Your task to perform on an android device: turn smart compose on in the gmail app Image 0: 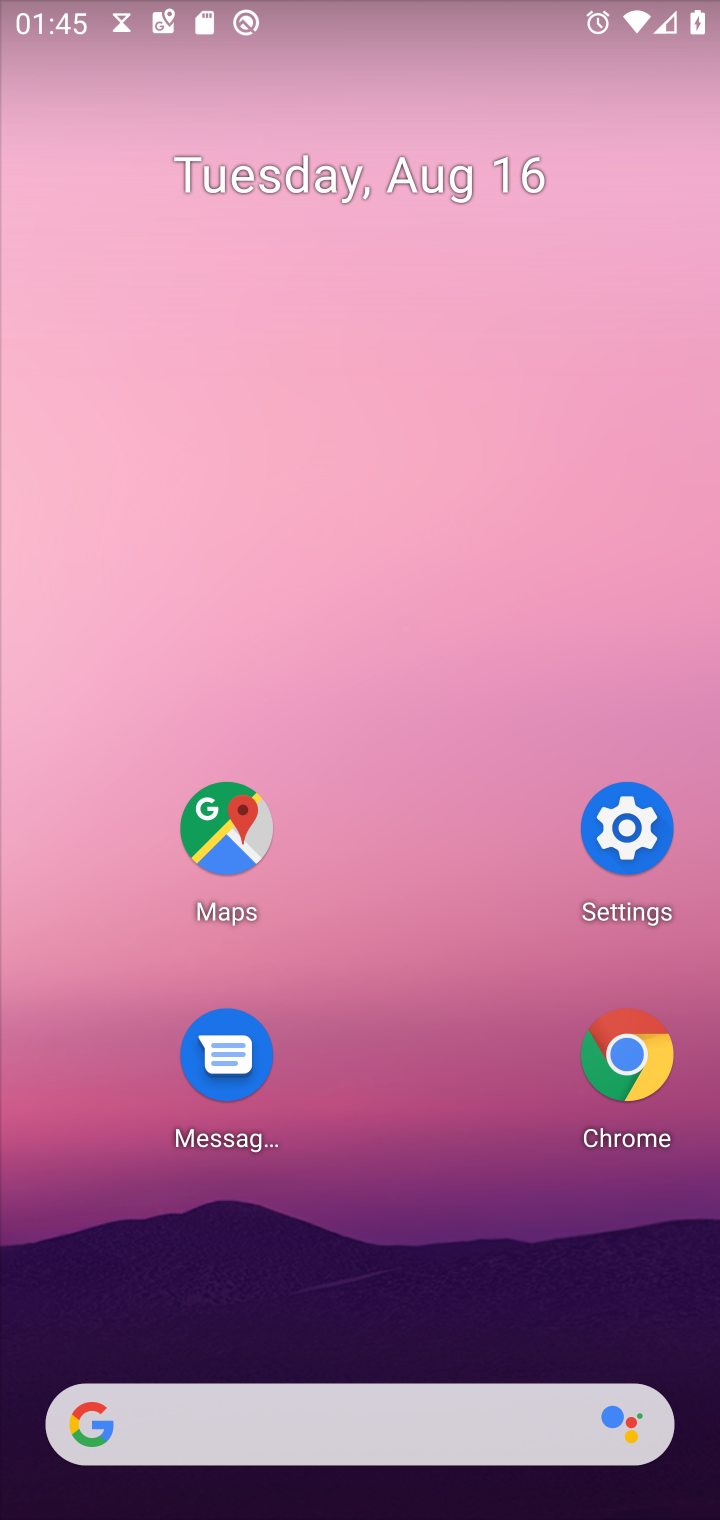
Step 0: drag from (438, 1078) to (576, 241)
Your task to perform on an android device: turn smart compose on in the gmail app Image 1: 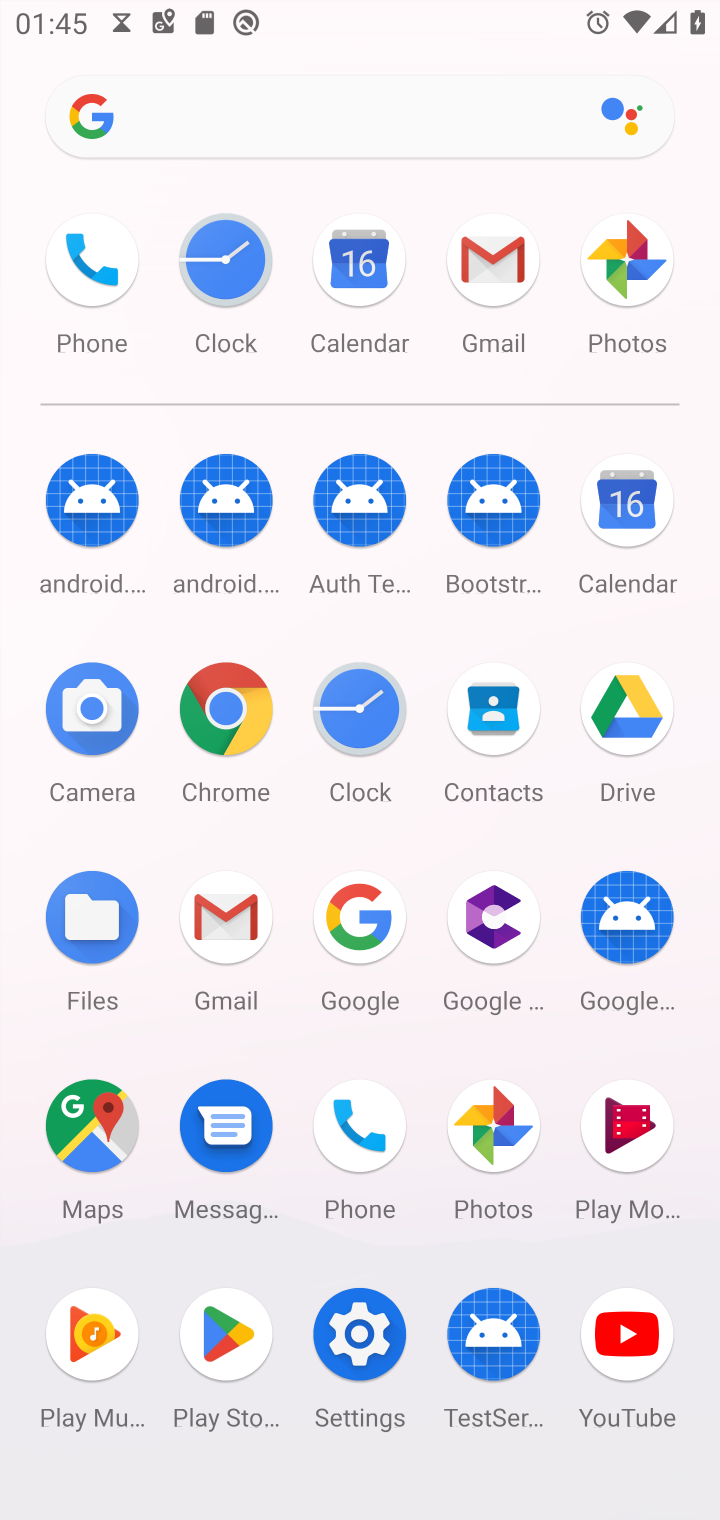
Step 1: click (493, 258)
Your task to perform on an android device: turn smart compose on in the gmail app Image 2: 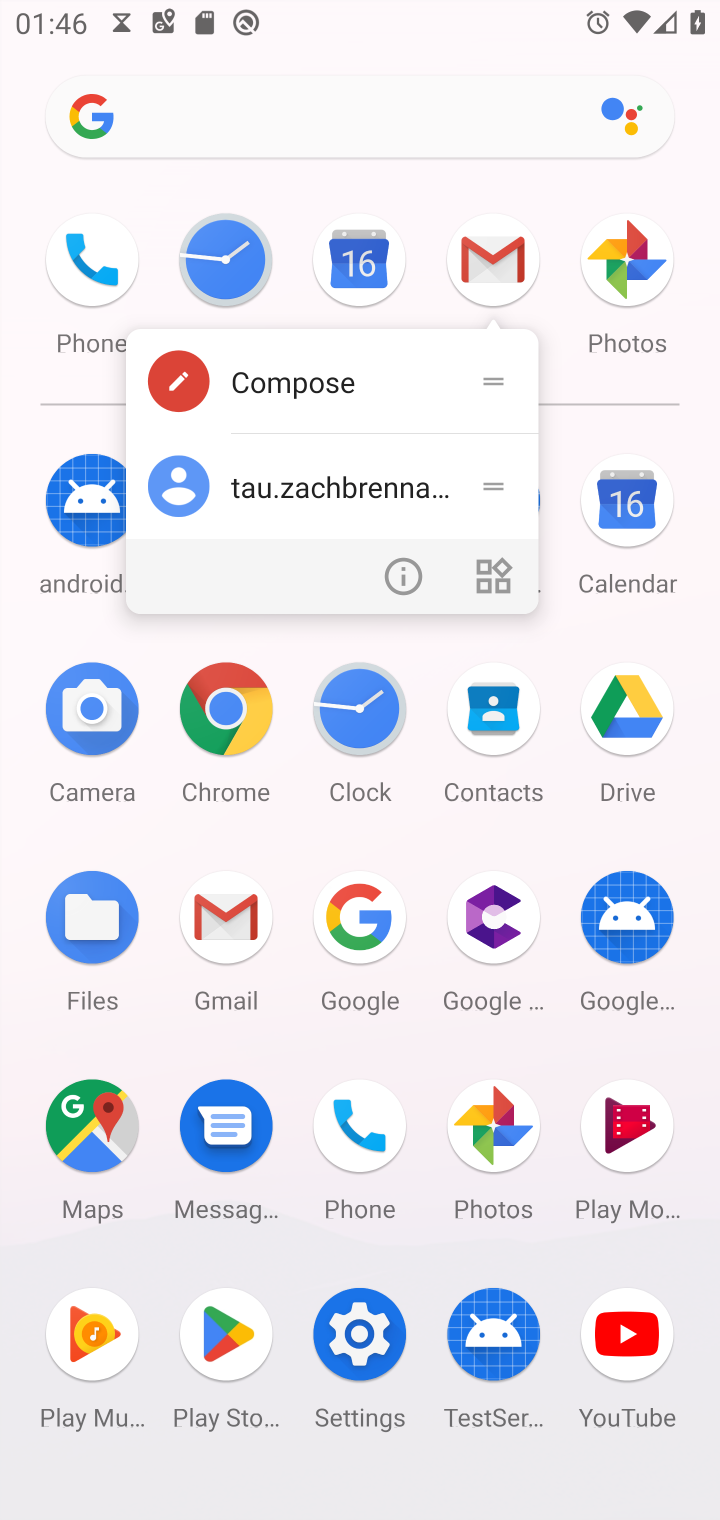
Step 2: click (493, 260)
Your task to perform on an android device: turn smart compose on in the gmail app Image 3: 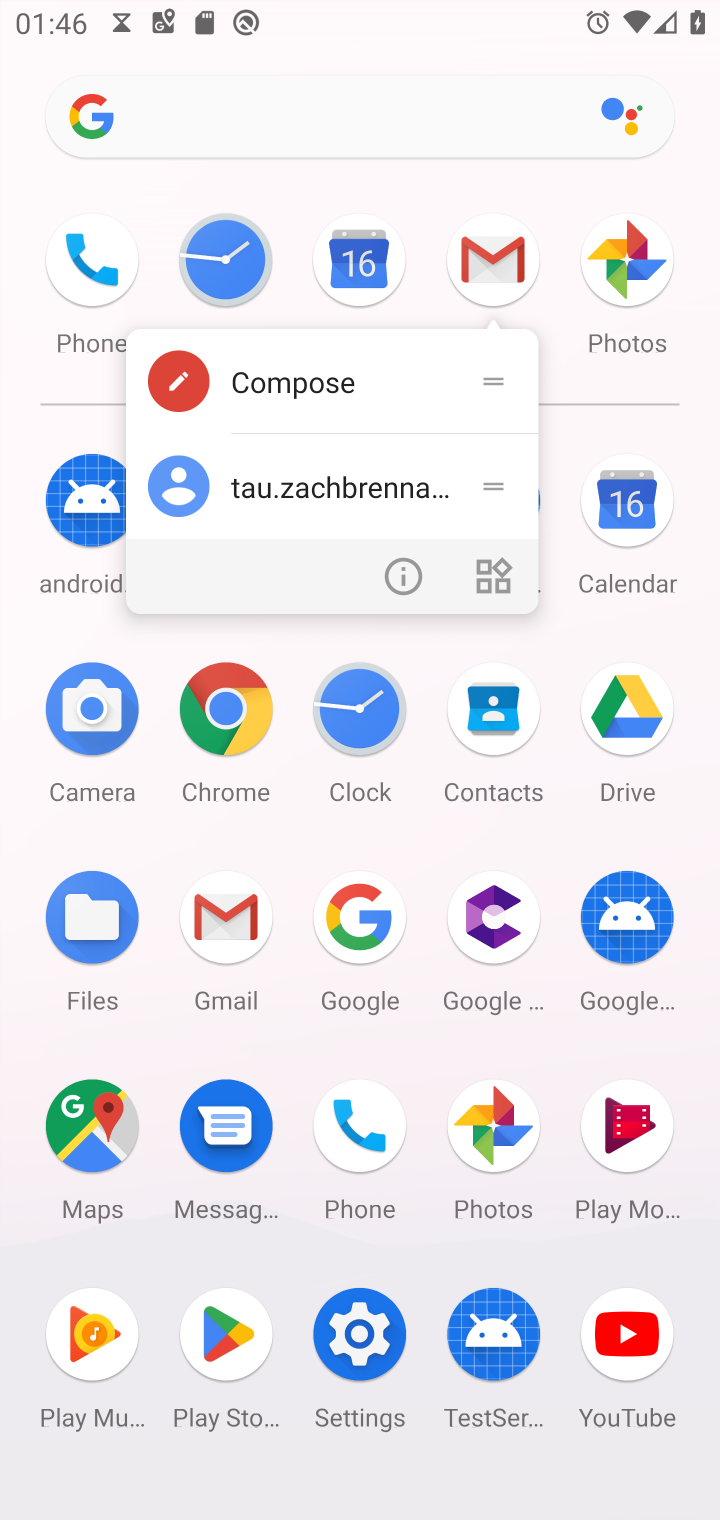
Step 3: click (493, 261)
Your task to perform on an android device: turn smart compose on in the gmail app Image 4: 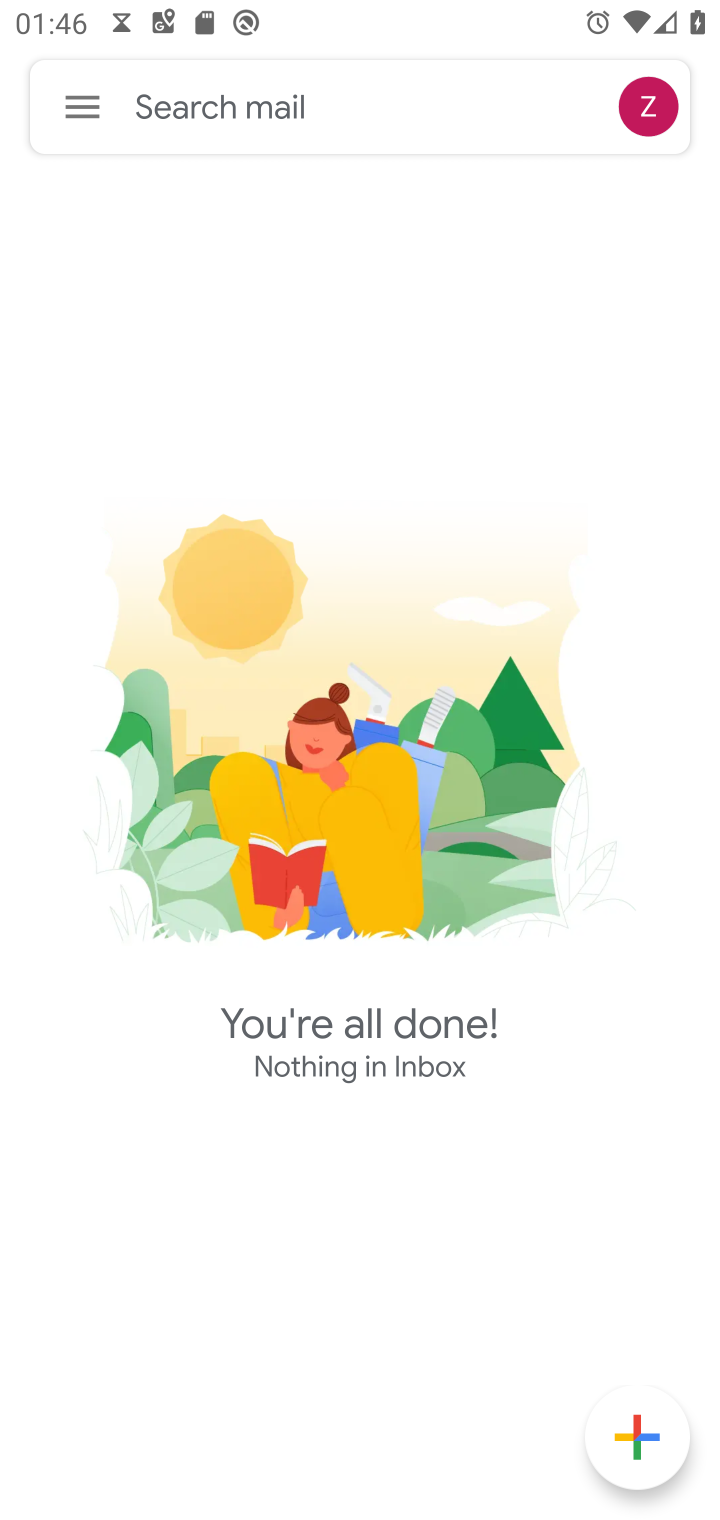
Step 4: click (66, 101)
Your task to perform on an android device: turn smart compose on in the gmail app Image 5: 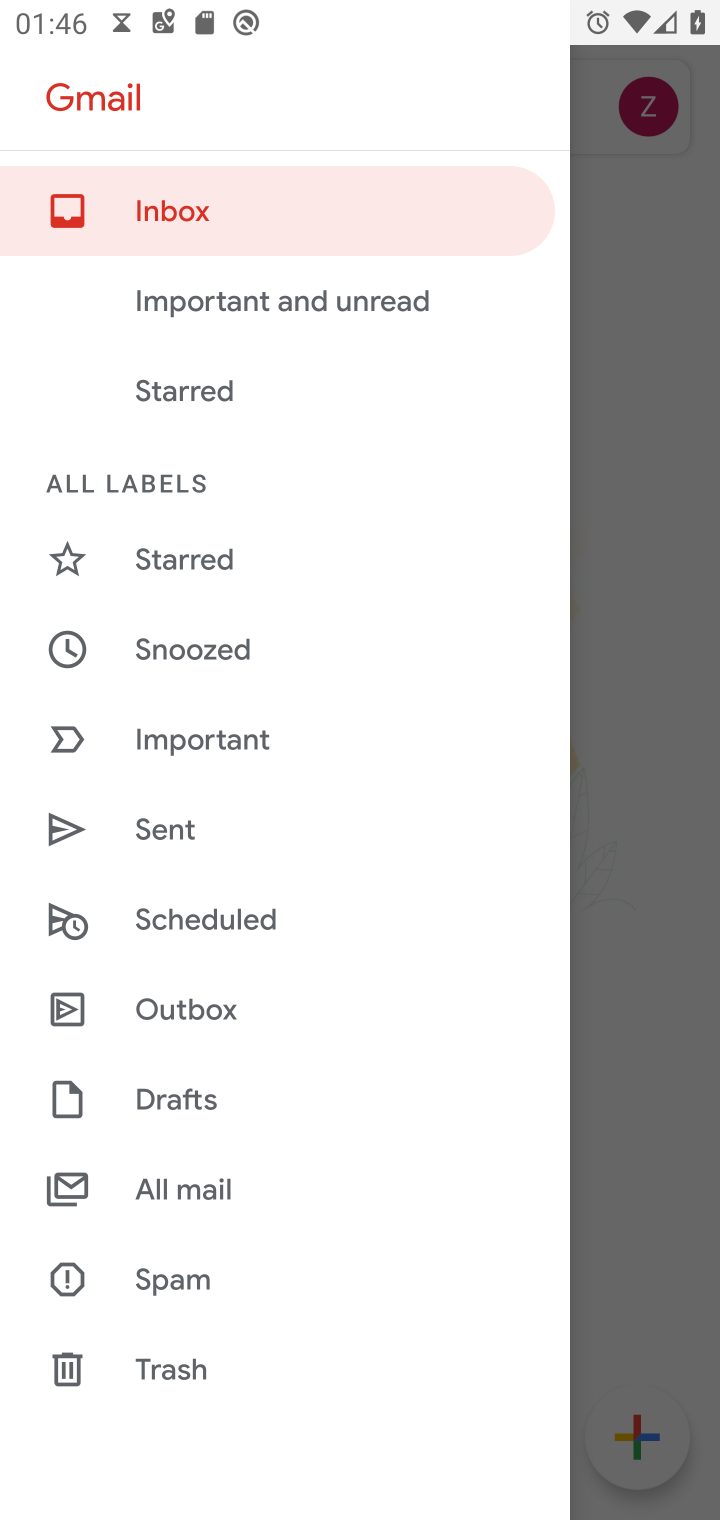
Step 5: drag from (459, 928) to (455, 191)
Your task to perform on an android device: turn smart compose on in the gmail app Image 6: 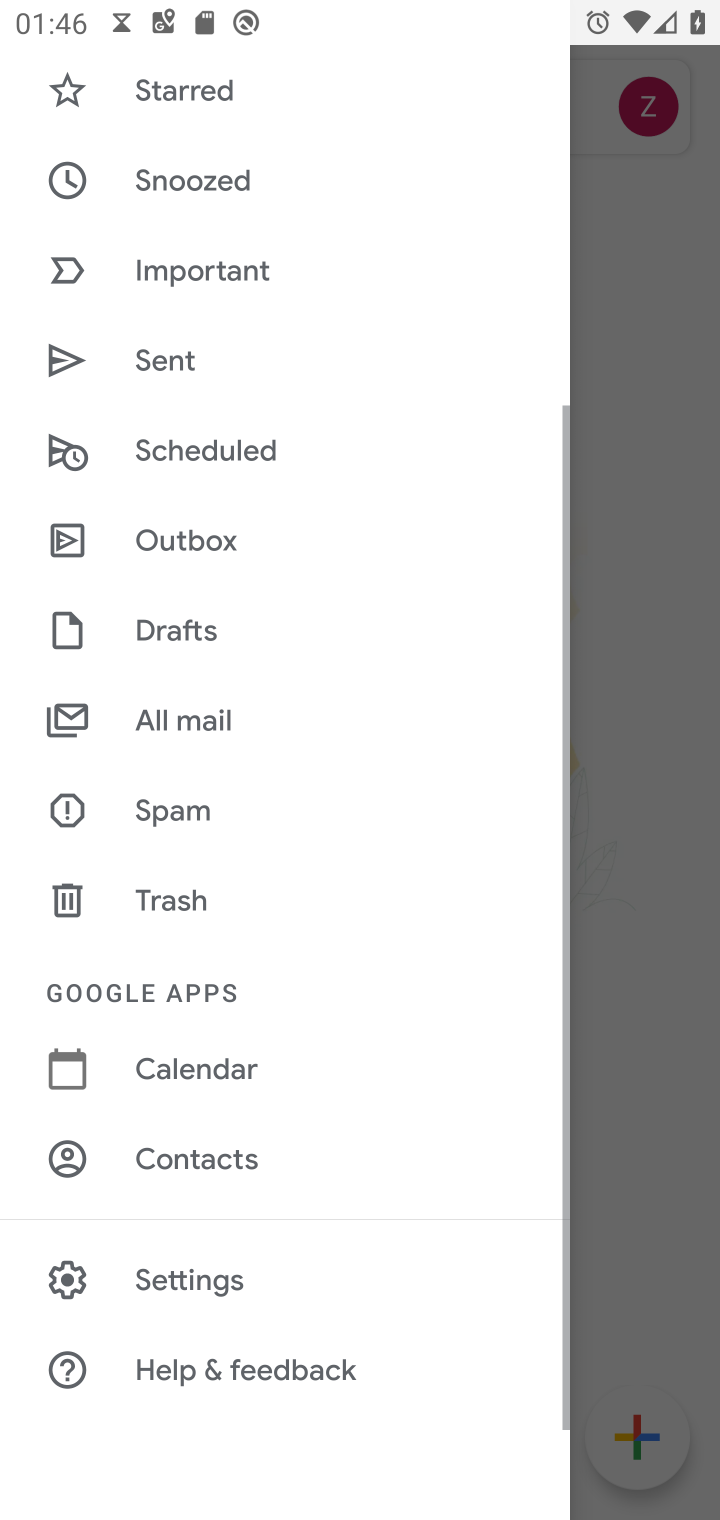
Step 6: click (202, 1263)
Your task to perform on an android device: turn smart compose on in the gmail app Image 7: 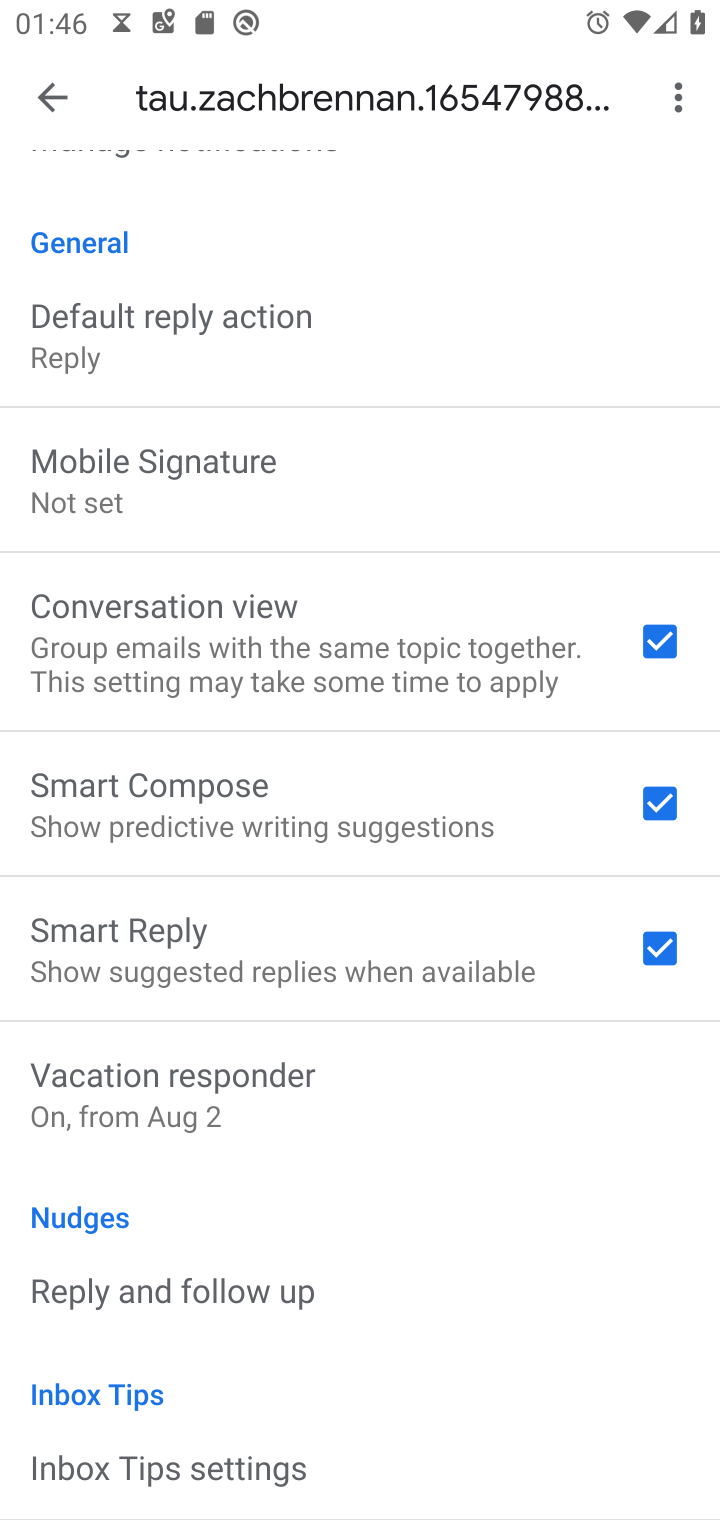
Step 7: task complete